Your task to perform on an android device: uninstall "Paramount+ | Peak Streaming" Image 0: 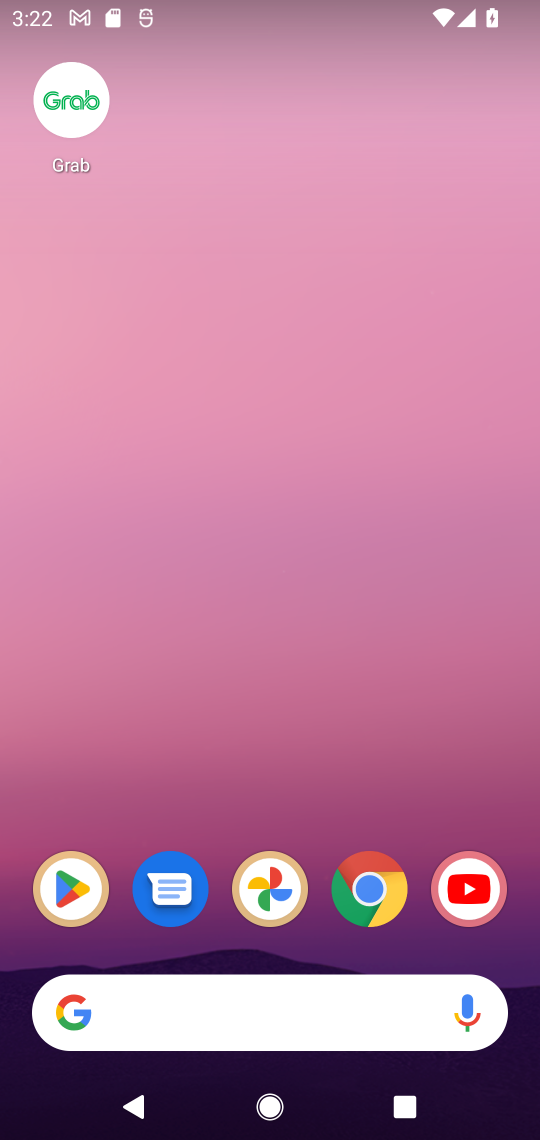
Step 0: click (103, 891)
Your task to perform on an android device: uninstall "Paramount+ | Peak Streaming" Image 1: 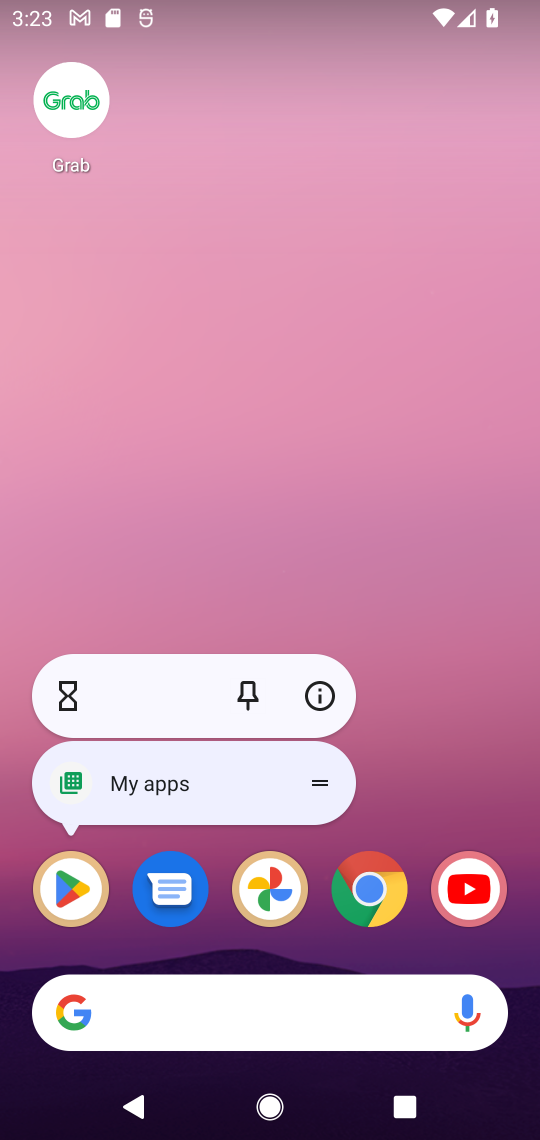
Step 1: click (80, 886)
Your task to perform on an android device: uninstall "Paramount+ | Peak Streaming" Image 2: 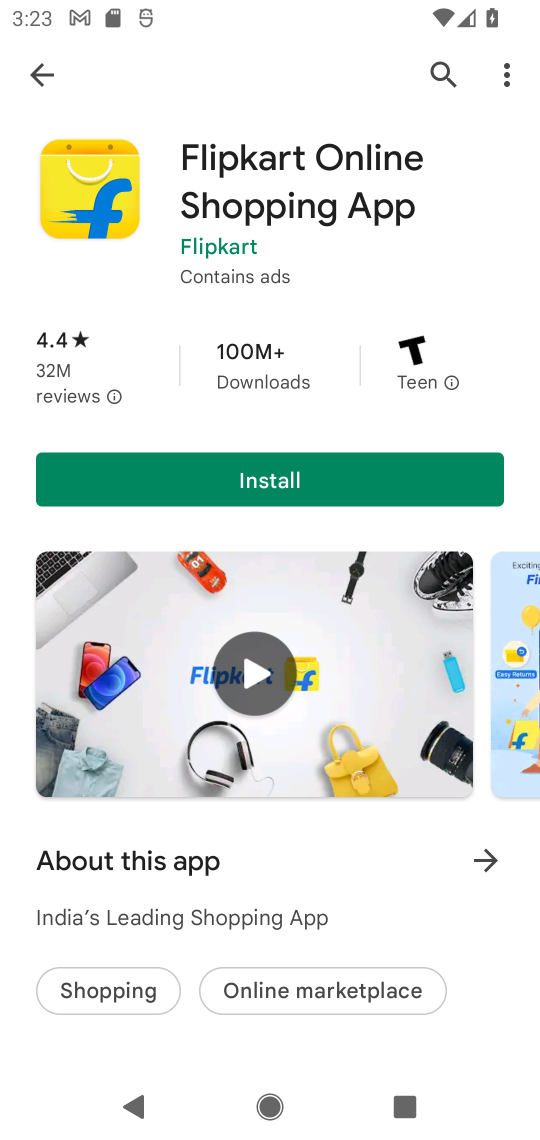
Step 2: click (451, 99)
Your task to perform on an android device: uninstall "Paramount+ | Peak Streaming" Image 3: 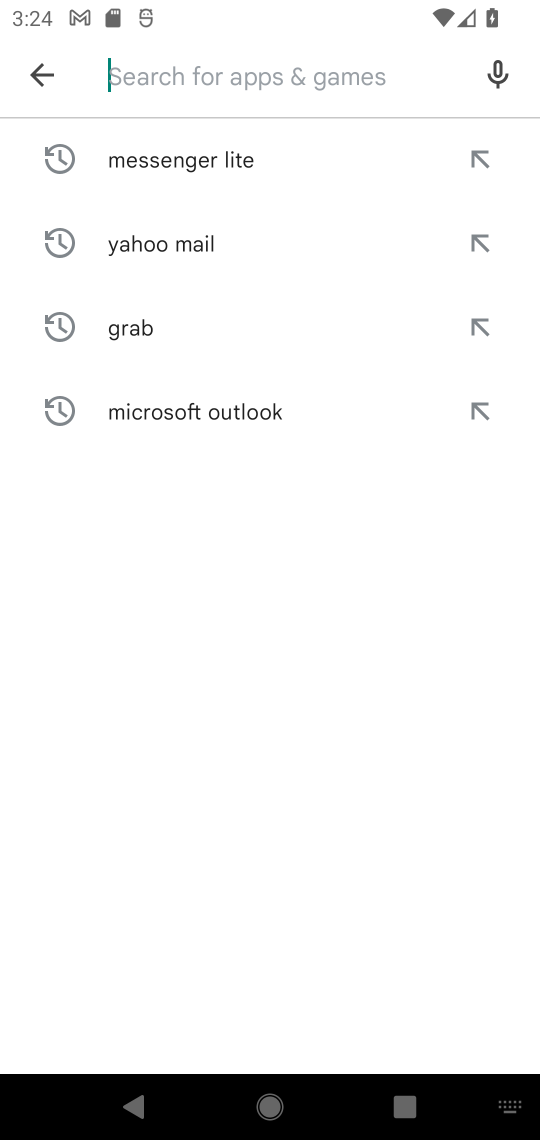
Step 3: type "Paramount+ | Peak Streaming"
Your task to perform on an android device: uninstall "Paramount+ | Peak Streaming" Image 4: 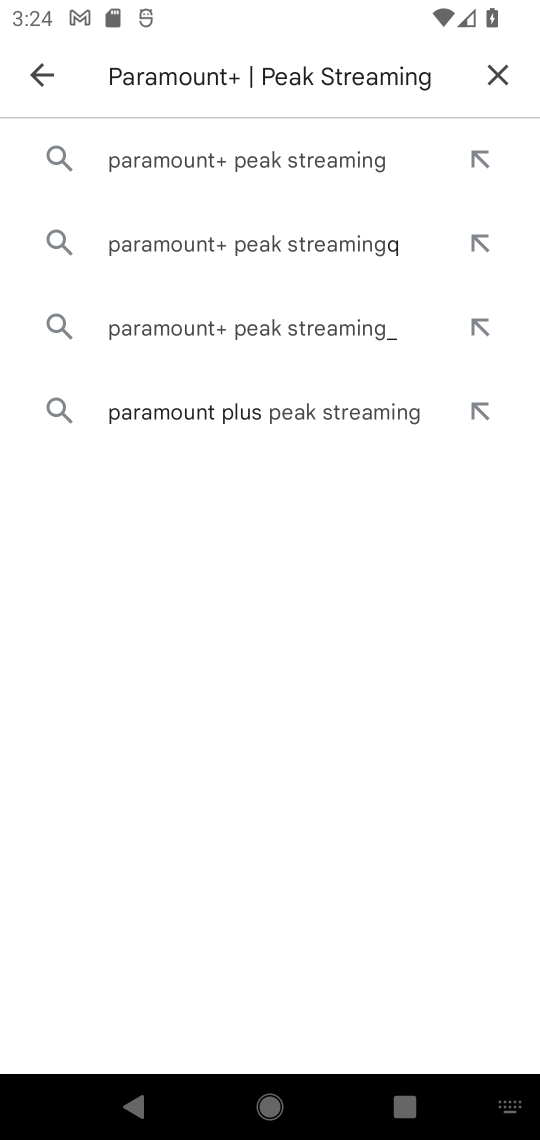
Step 4: click (169, 150)
Your task to perform on an android device: uninstall "Paramount+ | Peak Streaming" Image 5: 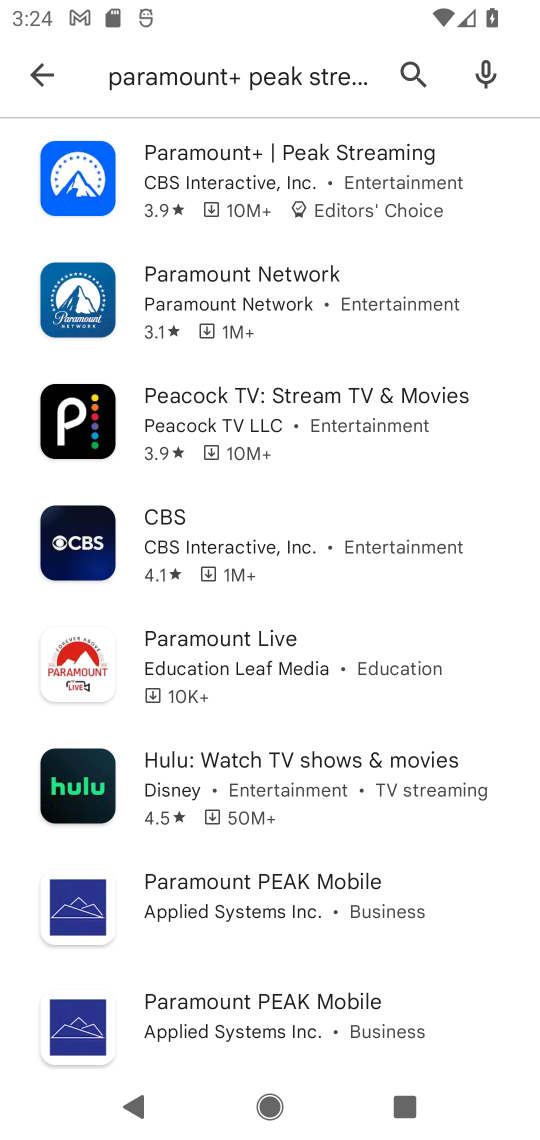
Step 5: click (169, 150)
Your task to perform on an android device: uninstall "Paramount+ | Peak Streaming" Image 6: 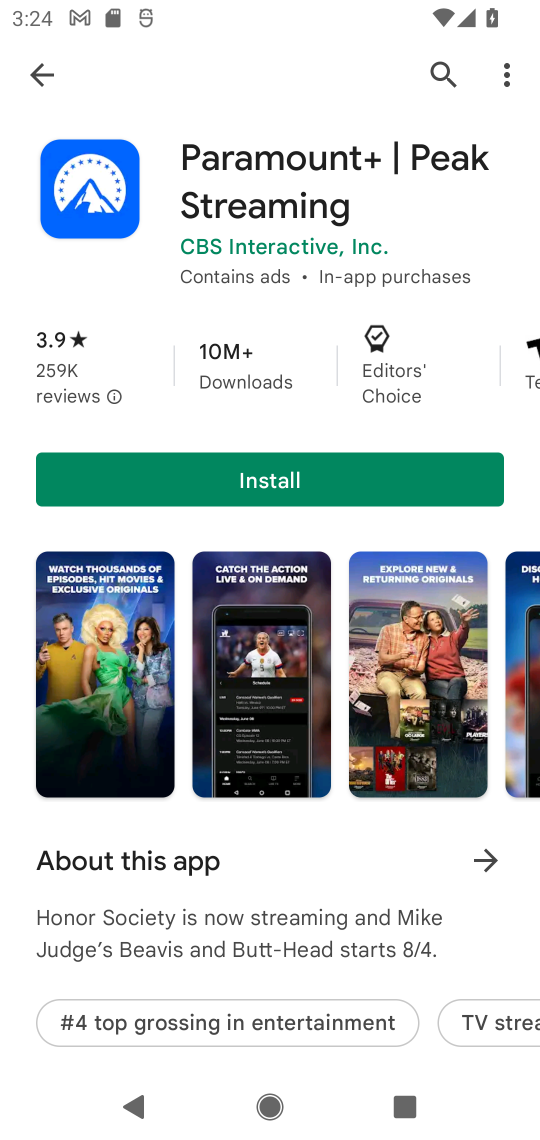
Step 6: task complete